Your task to perform on an android device: toggle location history Image 0: 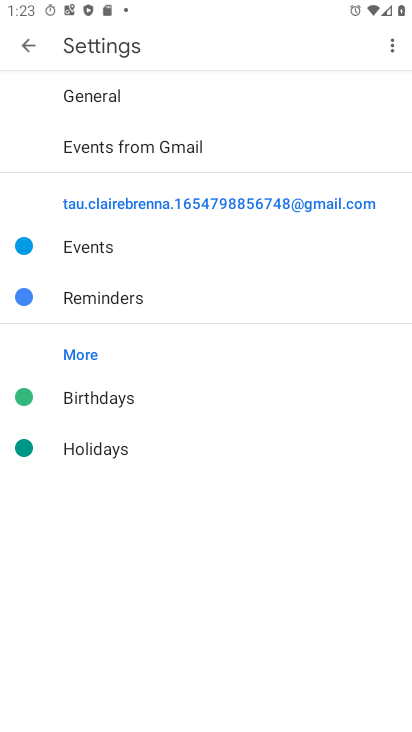
Step 0: drag from (24, 675) to (288, 257)
Your task to perform on an android device: toggle location history Image 1: 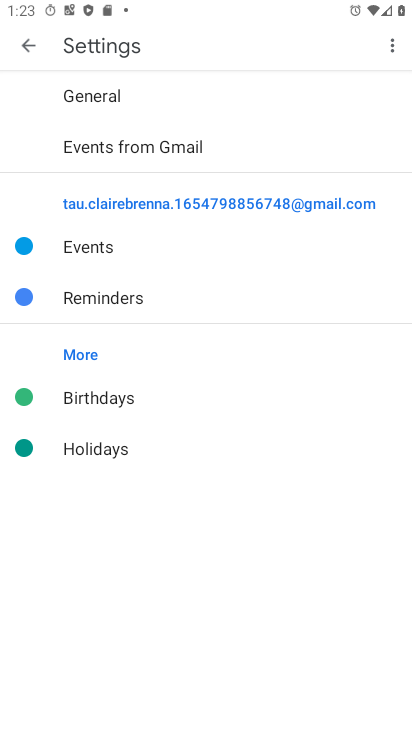
Step 1: press home button
Your task to perform on an android device: toggle location history Image 2: 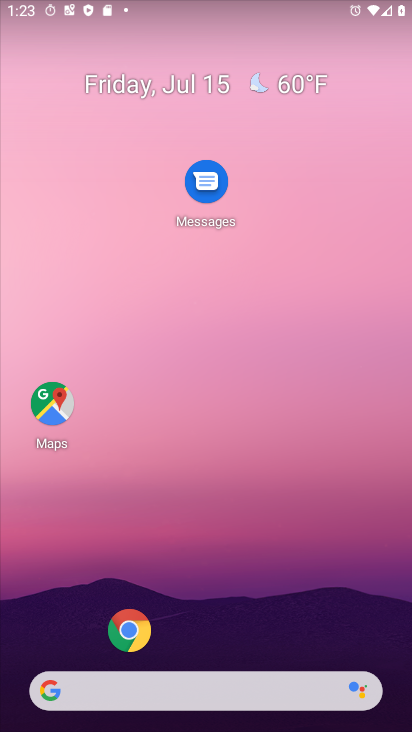
Step 2: drag from (42, 616) to (220, 1)
Your task to perform on an android device: toggle location history Image 3: 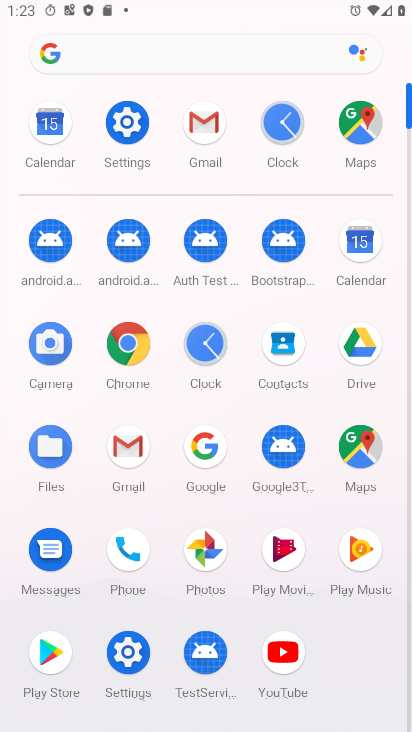
Step 3: click (122, 365)
Your task to perform on an android device: toggle location history Image 4: 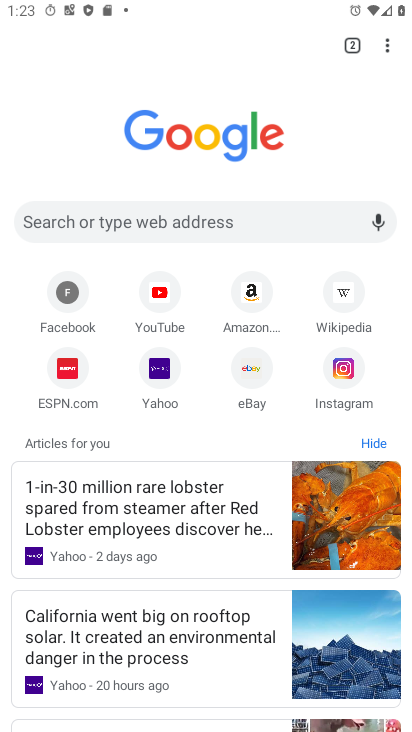
Step 4: click (390, 45)
Your task to perform on an android device: toggle location history Image 5: 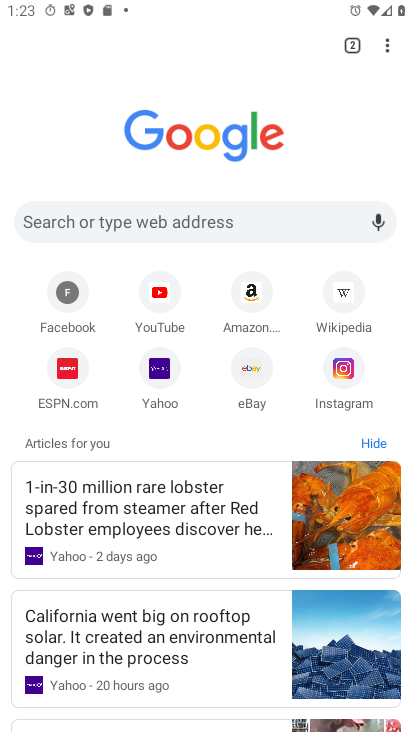
Step 5: click (385, 39)
Your task to perform on an android device: toggle location history Image 6: 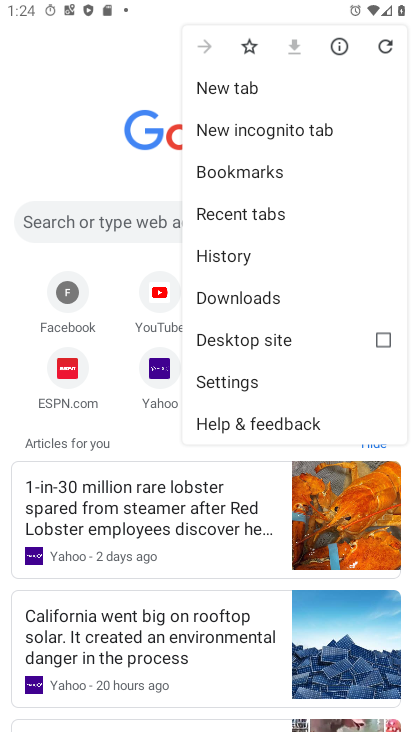
Step 6: click (127, 101)
Your task to perform on an android device: toggle location history Image 7: 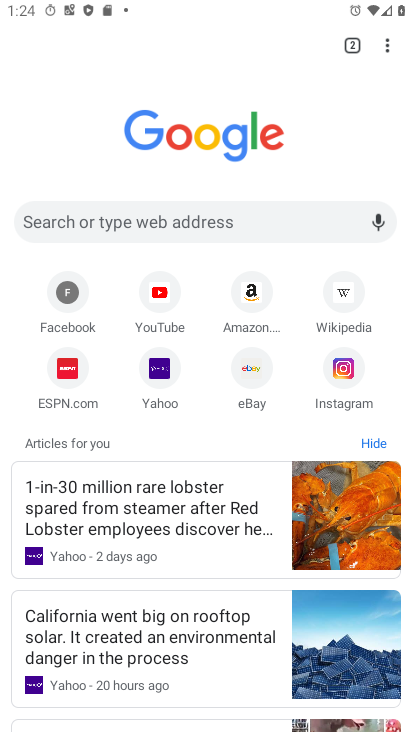
Step 7: task complete